Your task to perform on an android device: open app "DoorDash - Dasher" Image 0: 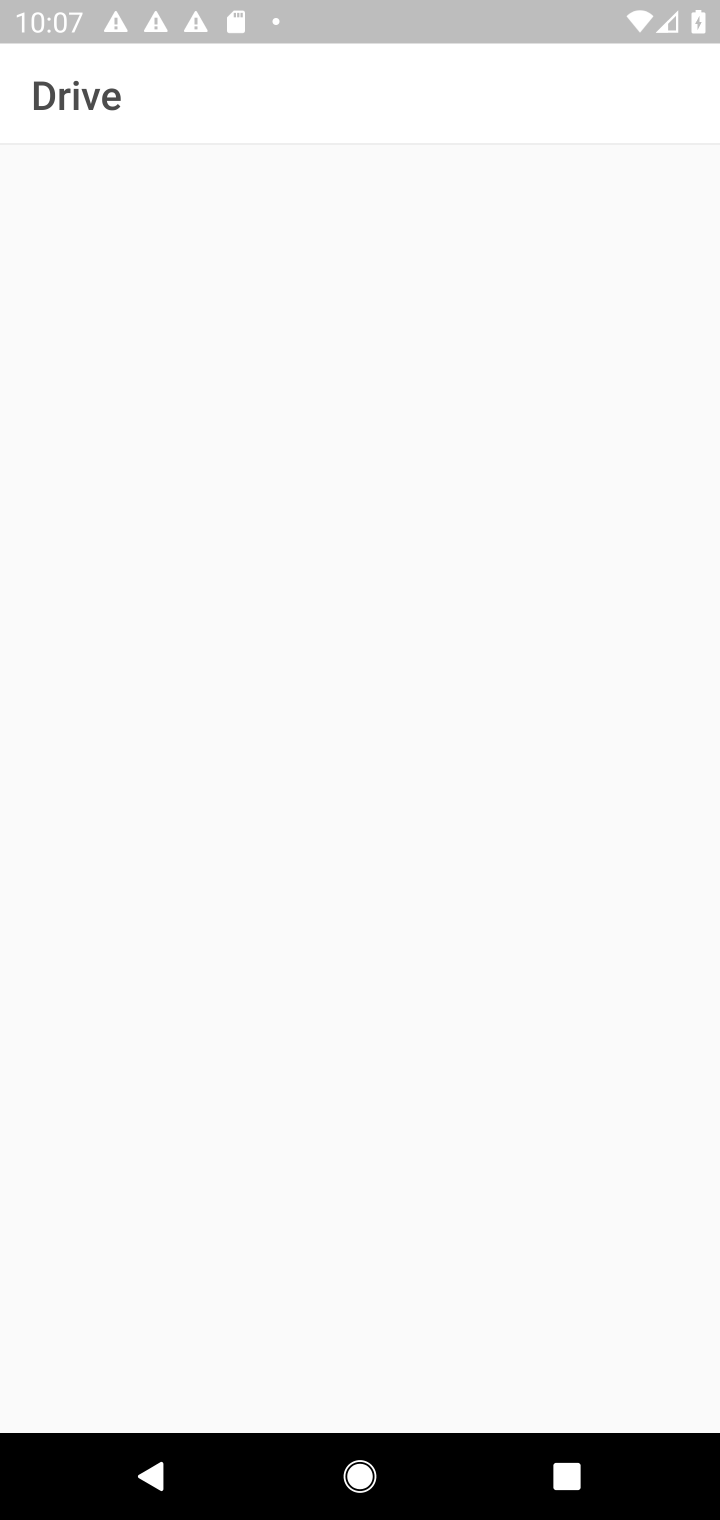
Step 0: press home button
Your task to perform on an android device: open app "DoorDash - Dasher" Image 1: 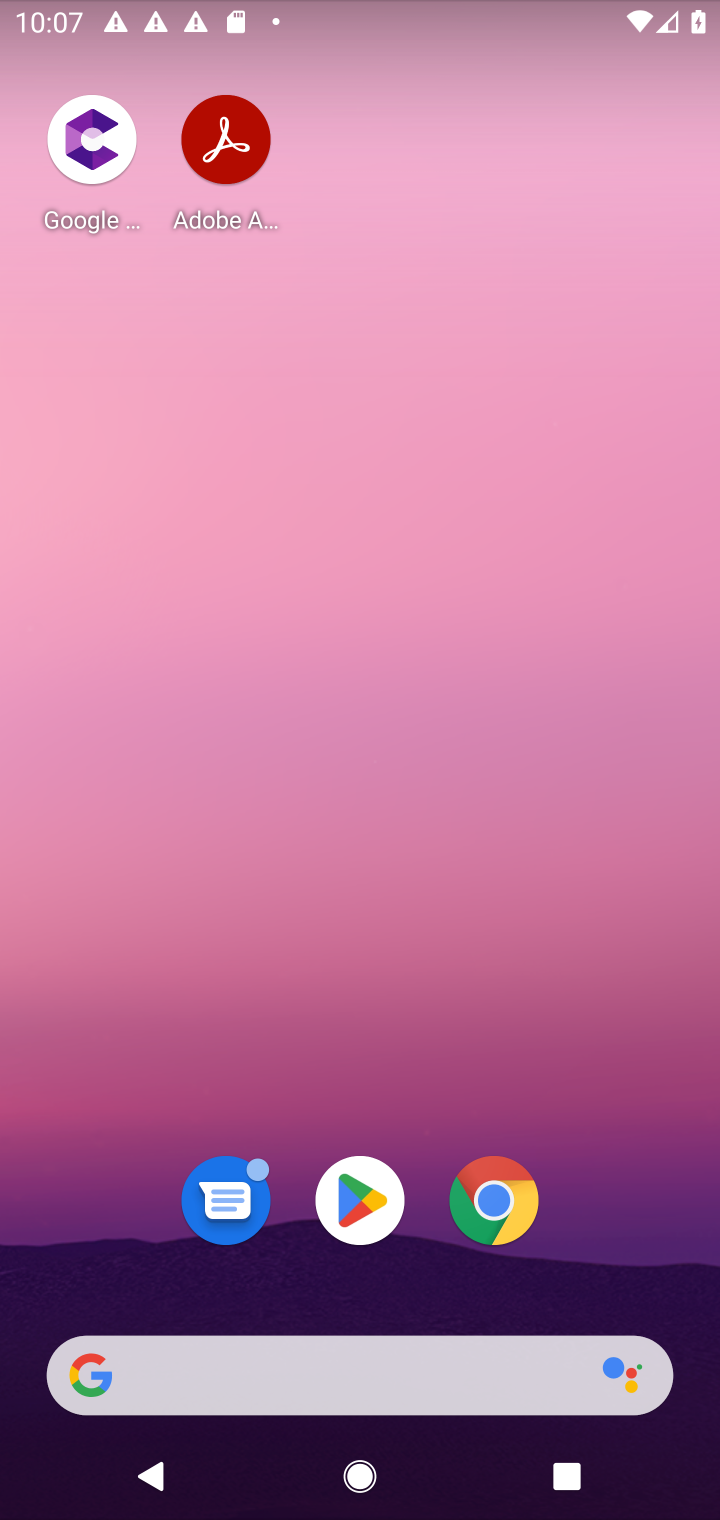
Step 1: click (344, 1200)
Your task to perform on an android device: open app "DoorDash - Dasher" Image 2: 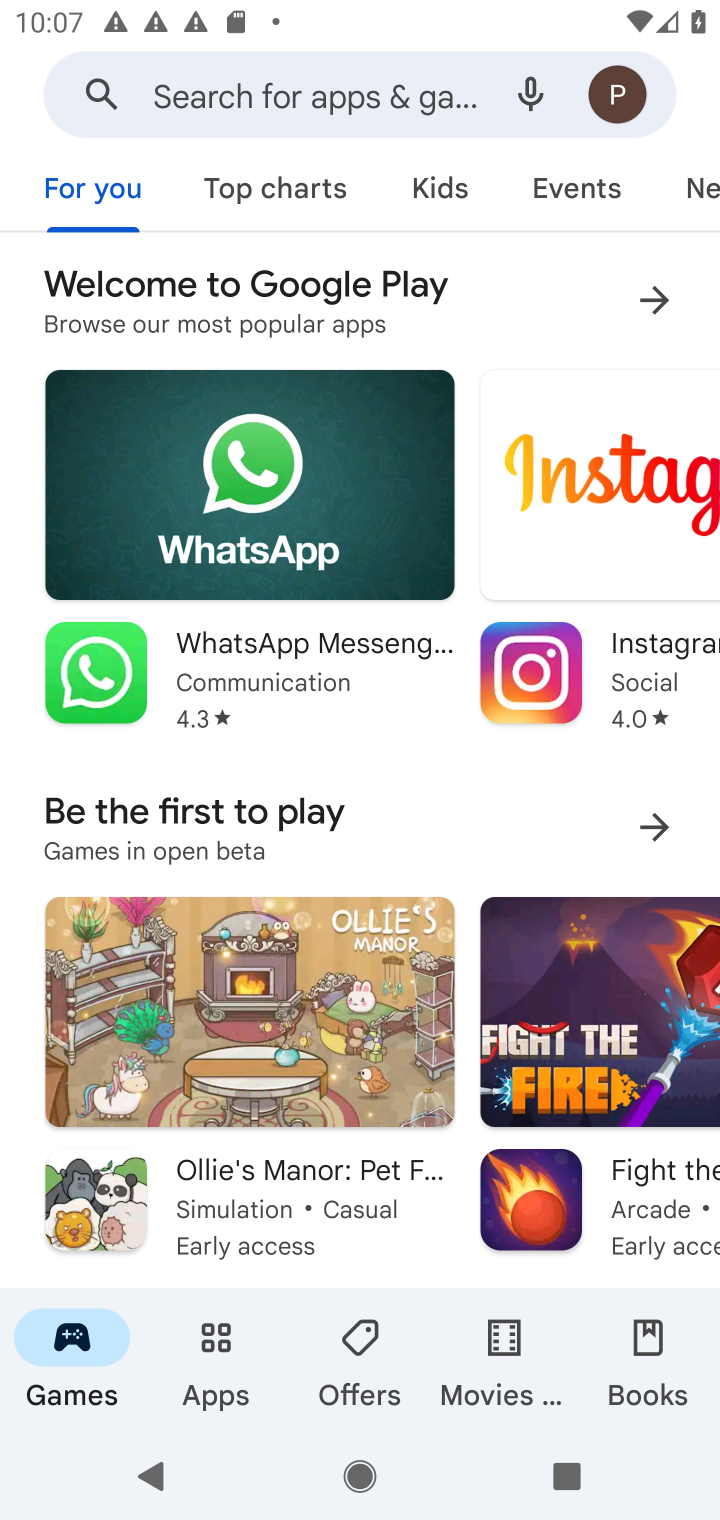
Step 2: click (301, 82)
Your task to perform on an android device: open app "DoorDash - Dasher" Image 3: 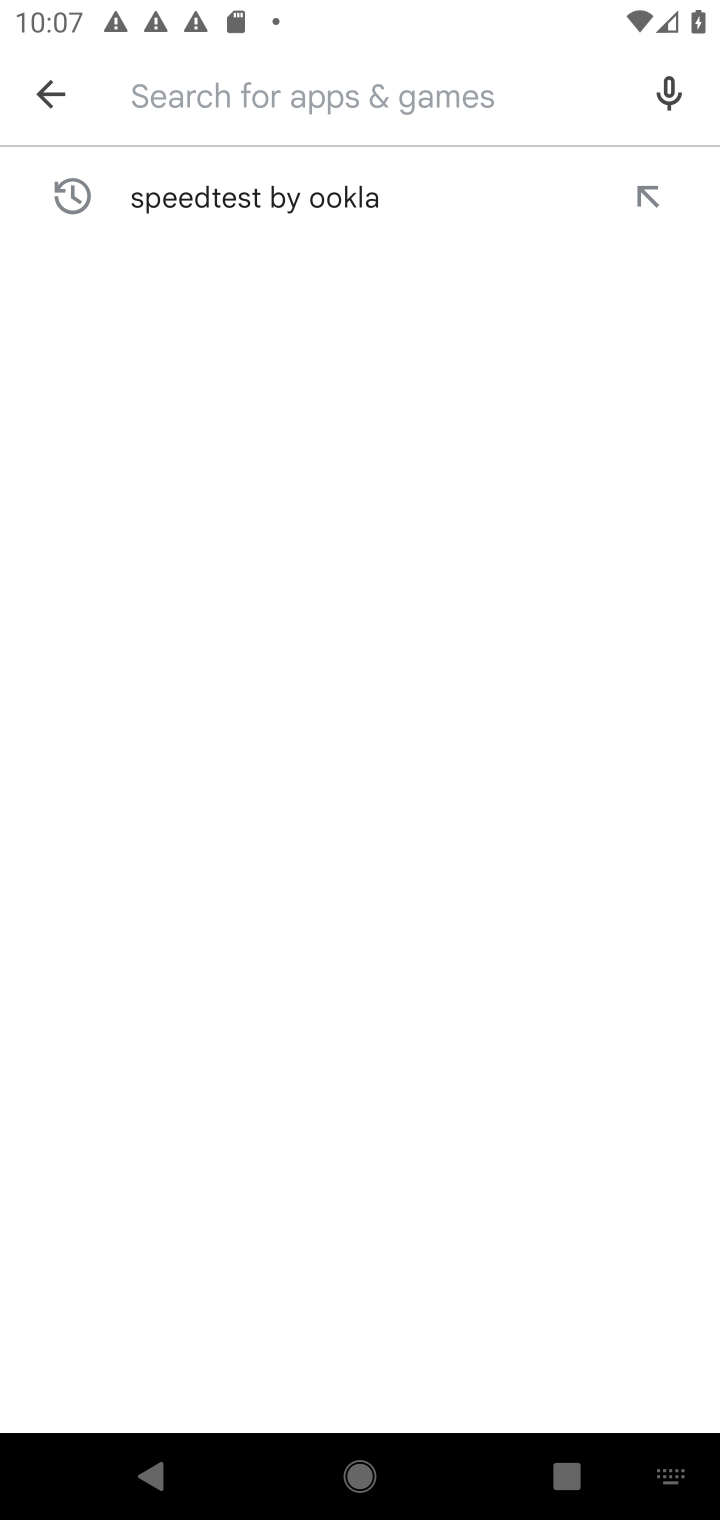
Step 3: type "doordash- dasher"
Your task to perform on an android device: open app "DoorDash - Dasher" Image 4: 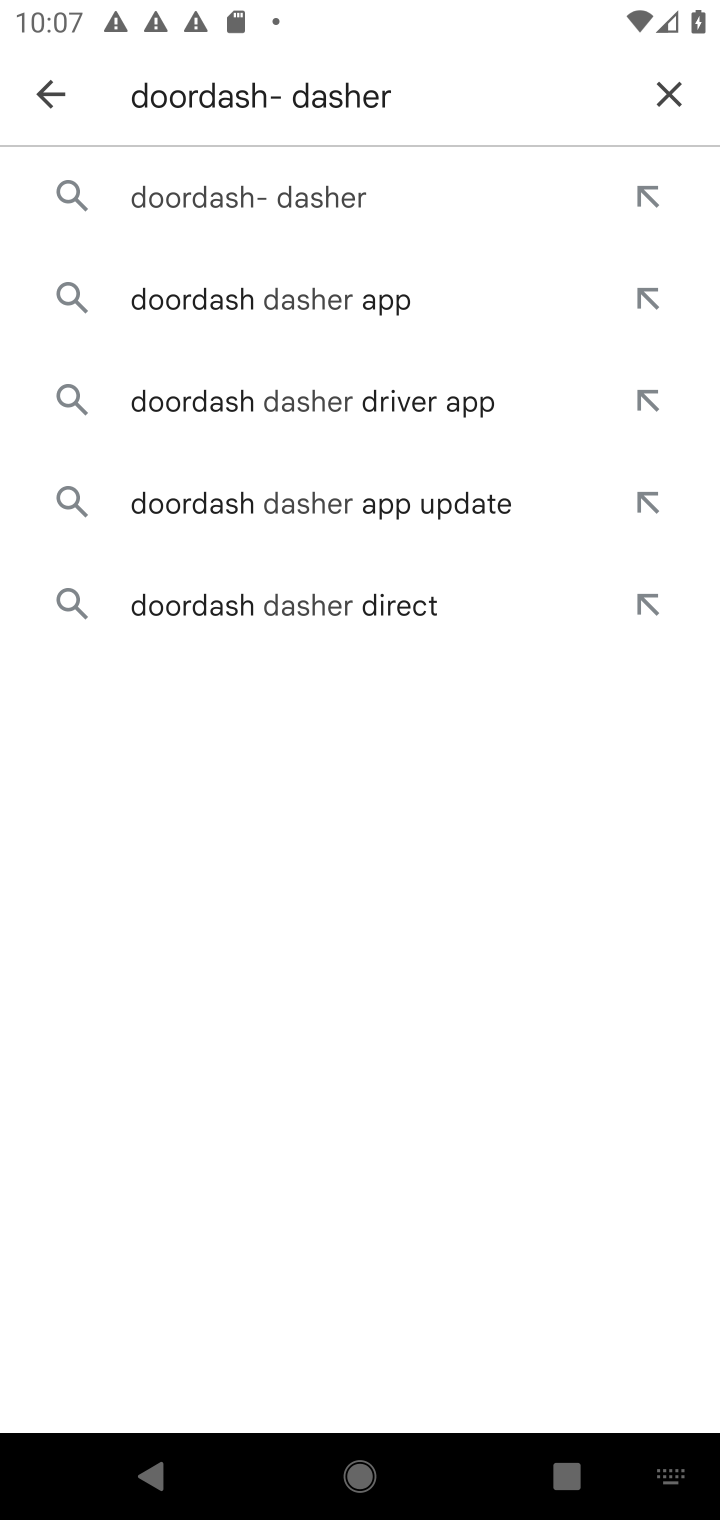
Step 4: click (262, 184)
Your task to perform on an android device: open app "DoorDash - Dasher" Image 5: 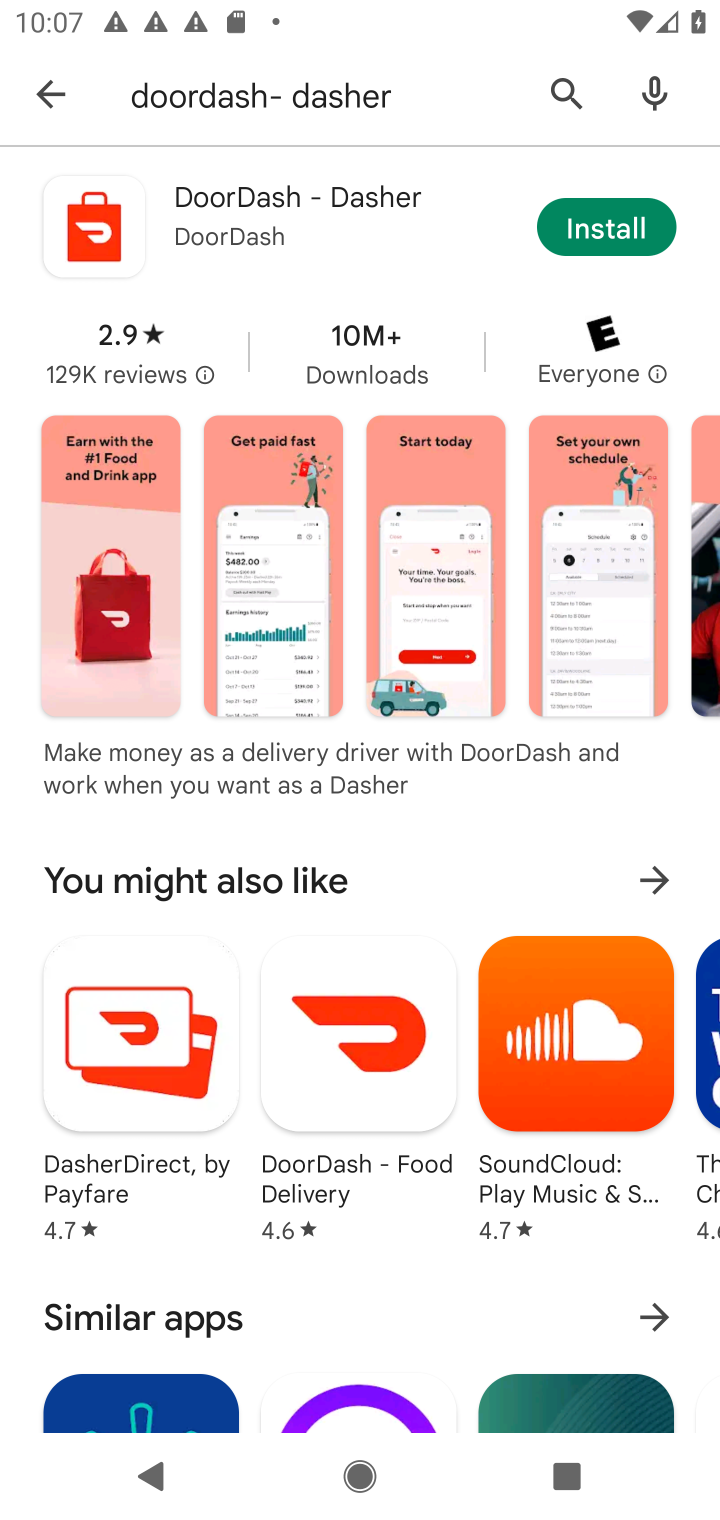
Step 5: task complete